Your task to perform on an android device: toggle airplane mode Image 0: 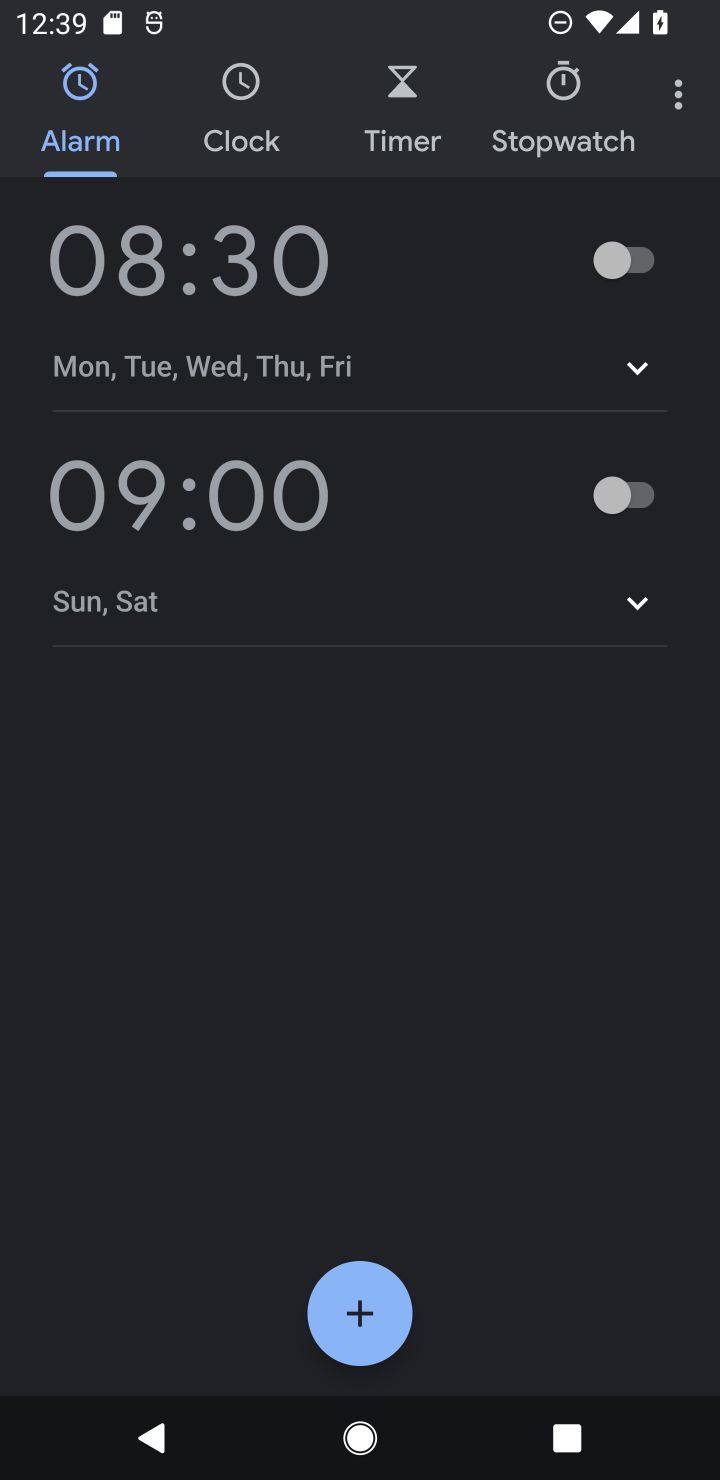
Step 0: drag from (579, 16) to (490, 824)
Your task to perform on an android device: toggle airplane mode Image 1: 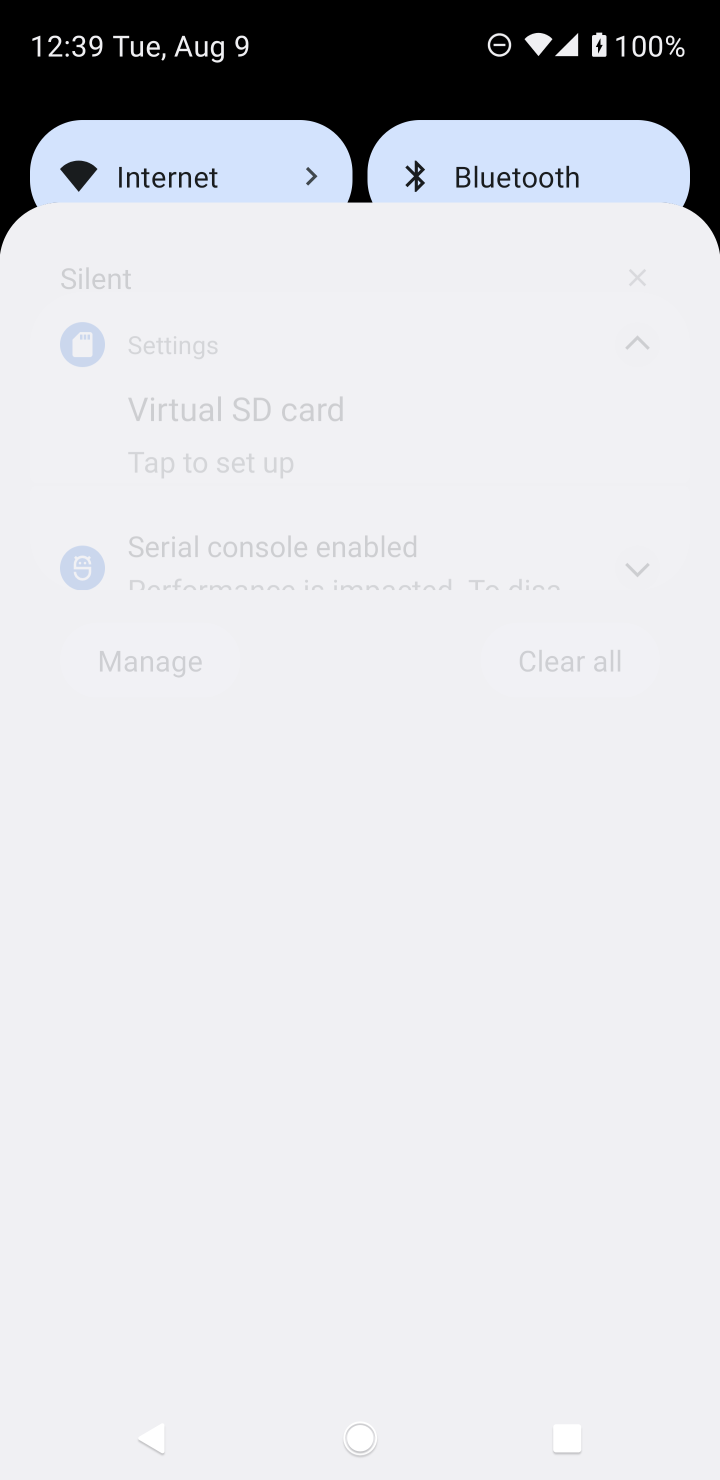
Step 1: drag from (490, 824) to (475, 1282)
Your task to perform on an android device: toggle airplane mode Image 2: 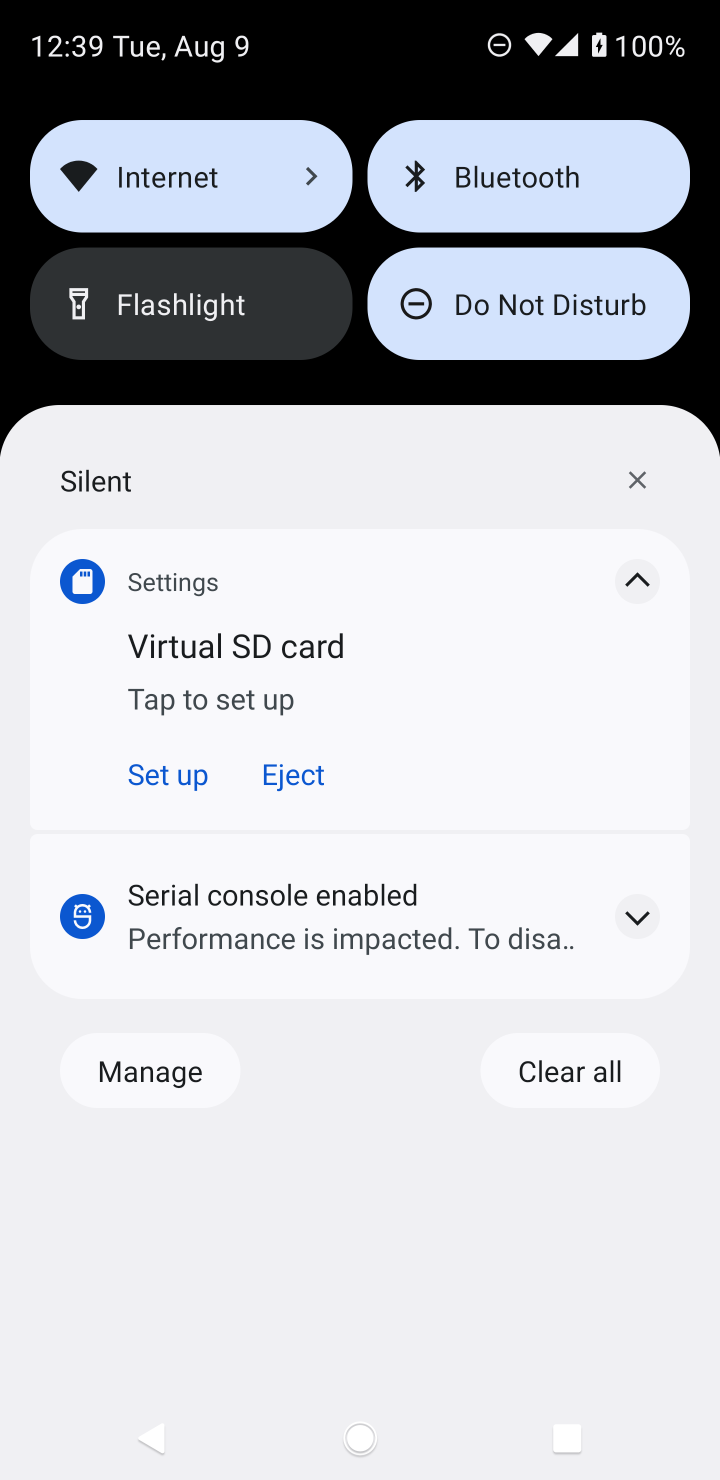
Step 2: drag from (347, 374) to (468, 1316)
Your task to perform on an android device: toggle airplane mode Image 3: 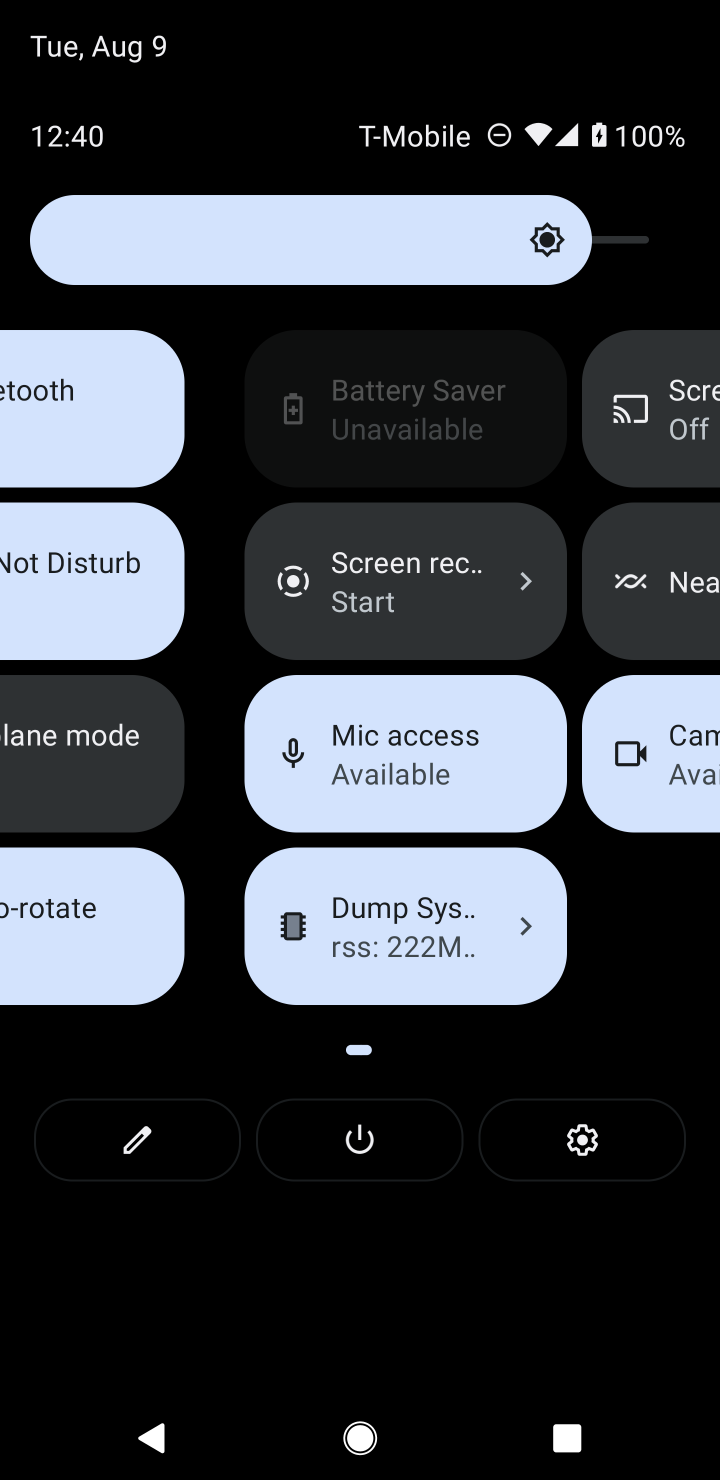
Step 3: click (589, 1141)
Your task to perform on an android device: toggle airplane mode Image 4: 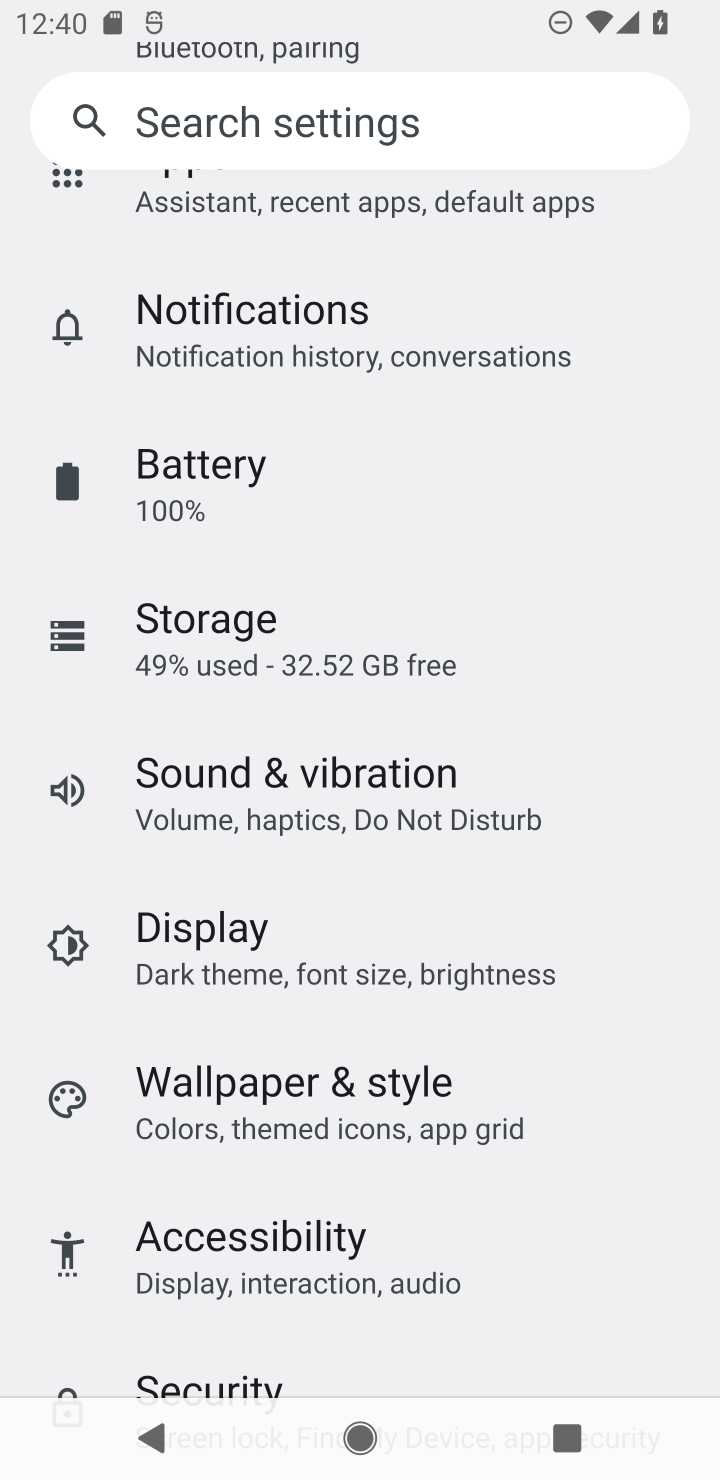
Step 4: drag from (297, 213) to (351, 1247)
Your task to perform on an android device: toggle airplane mode Image 5: 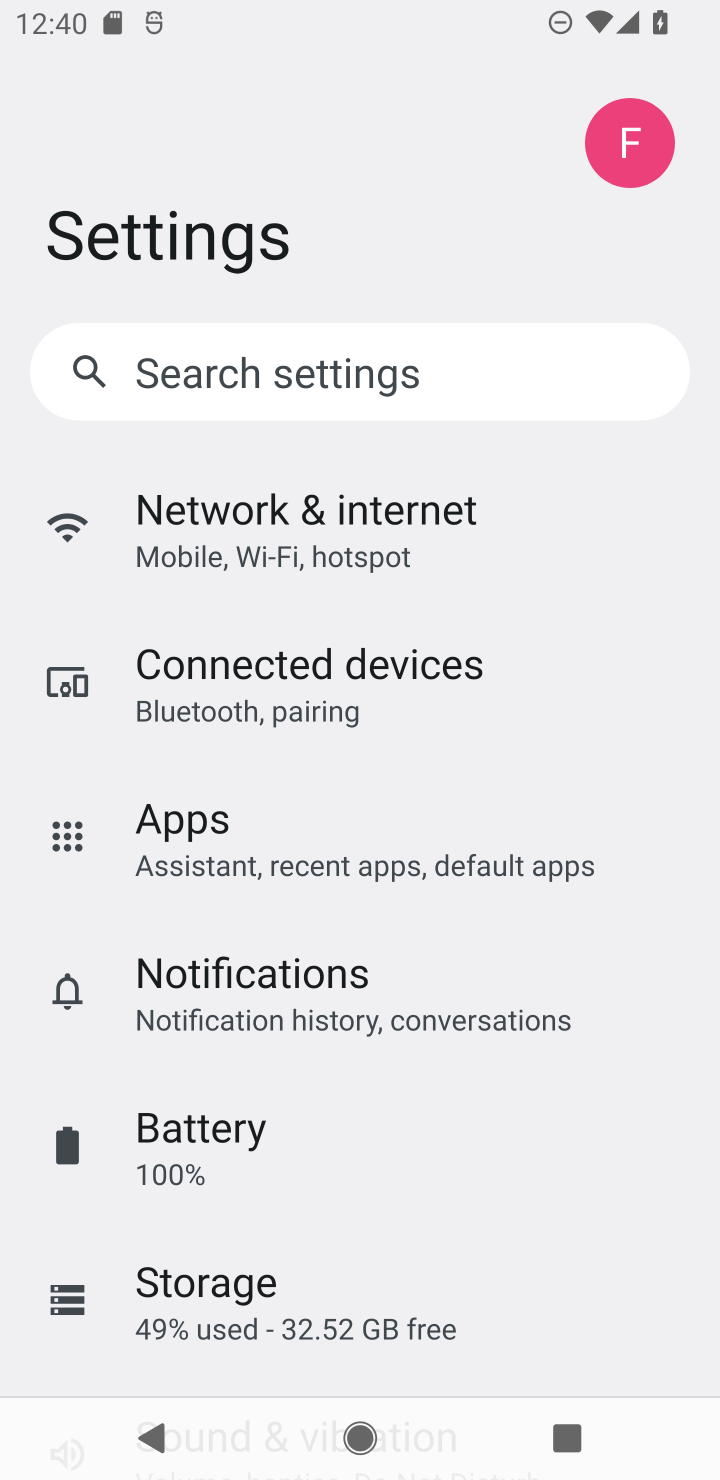
Step 5: click (359, 560)
Your task to perform on an android device: toggle airplane mode Image 6: 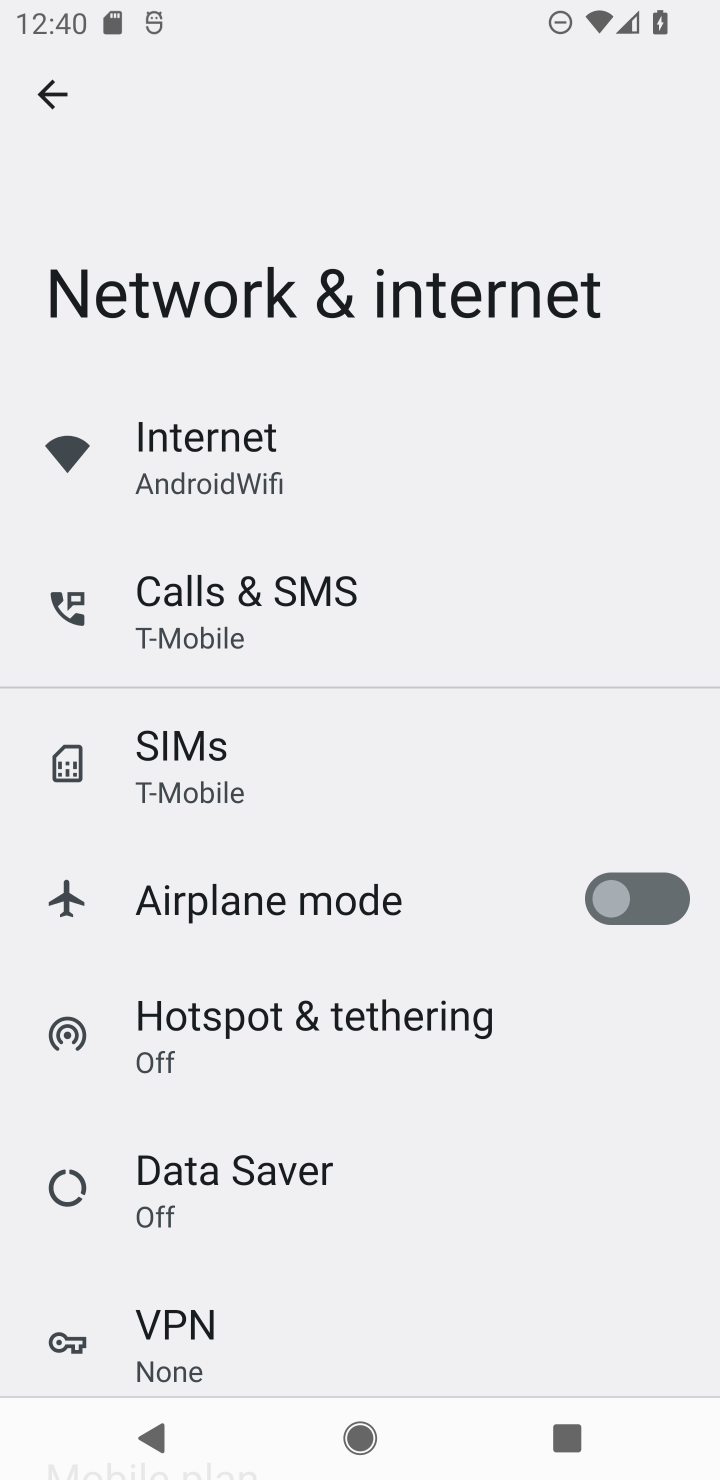
Step 6: click (627, 901)
Your task to perform on an android device: toggle airplane mode Image 7: 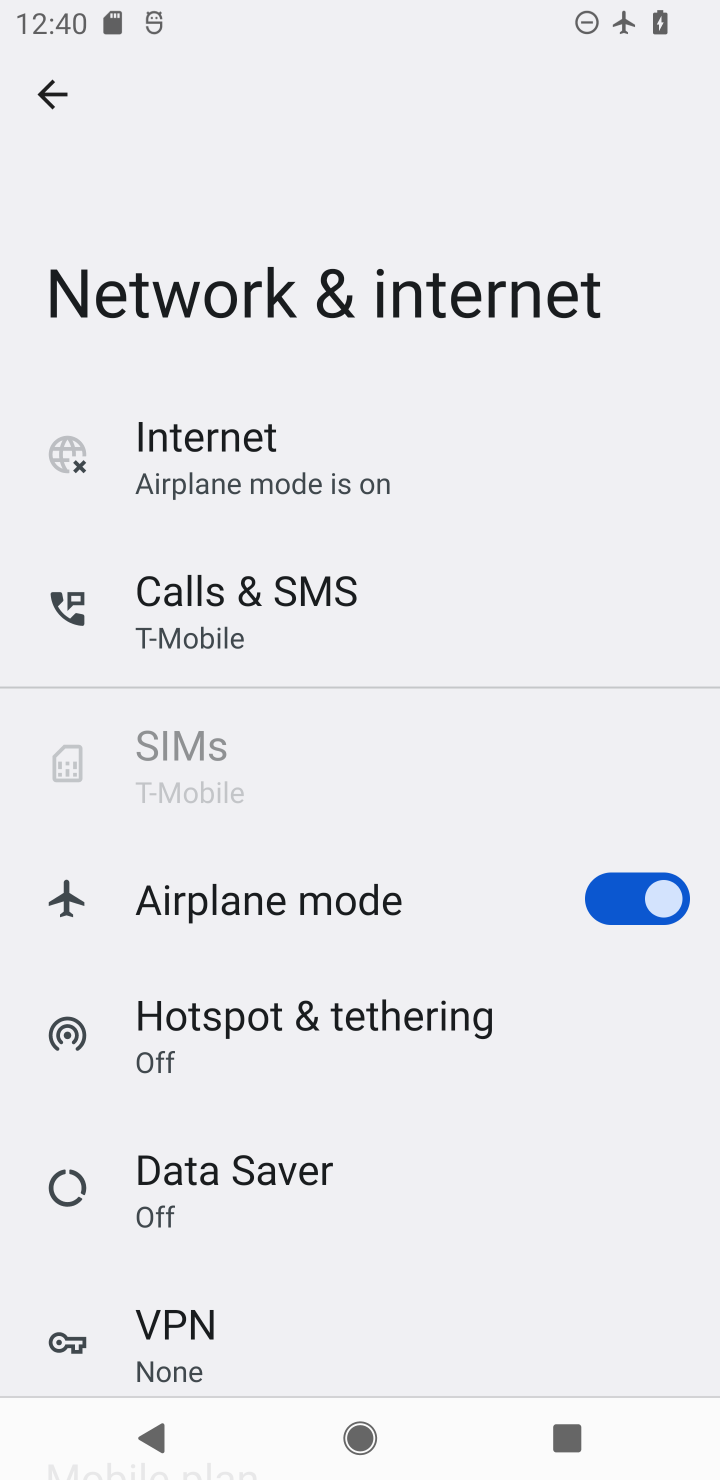
Step 7: task complete